Your task to perform on an android device: turn notification dots off Image 0: 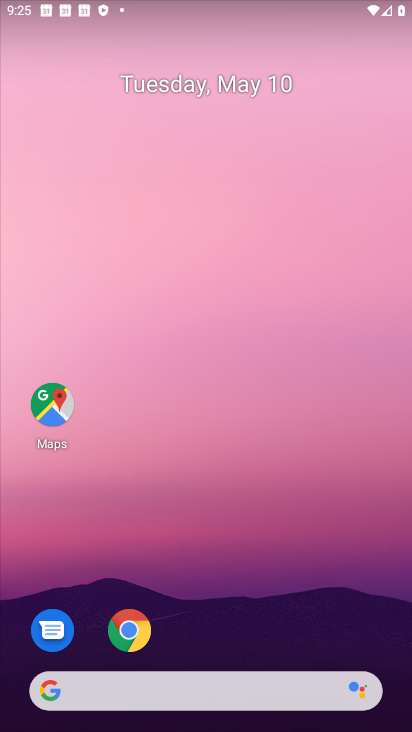
Step 0: drag from (152, 362) to (172, 4)
Your task to perform on an android device: turn notification dots off Image 1: 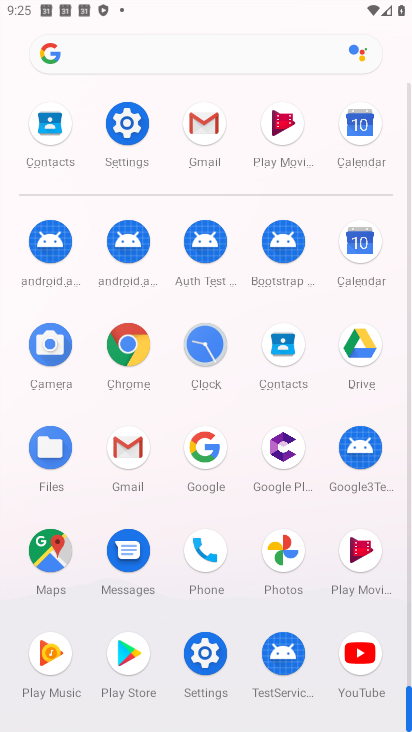
Step 1: click (121, 125)
Your task to perform on an android device: turn notification dots off Image 2: 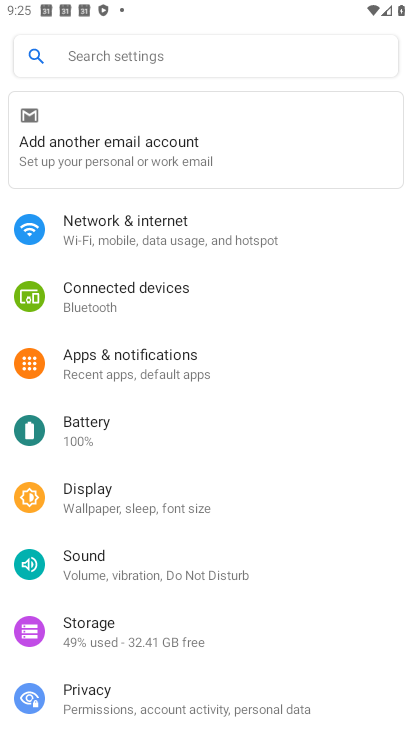
Step 2: click (183, 231)
Your task to perform on an android device: turn notification dots off Image 3: 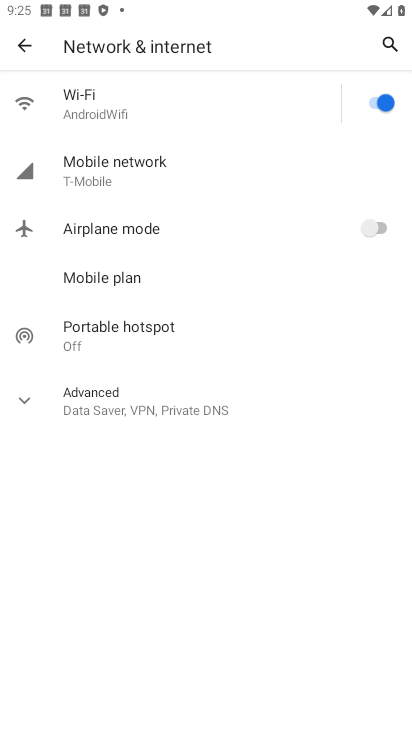
Step 3: press back button
Your task to perform on an android device: turn notification dots off Image 4: 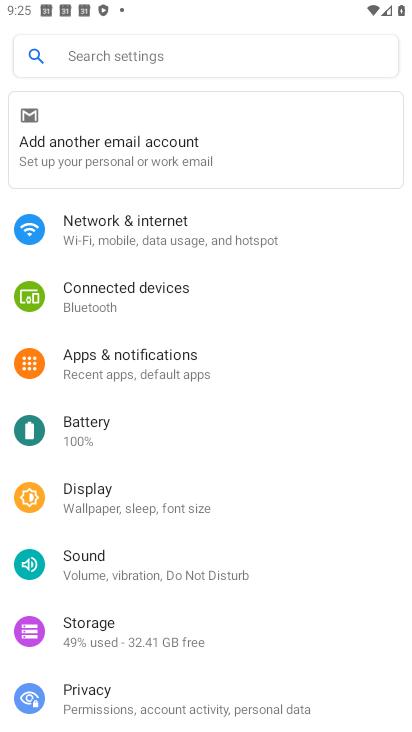
Step 4: click (177, 359)
Your task to perform on an android device: turn notification dots off Image 5: 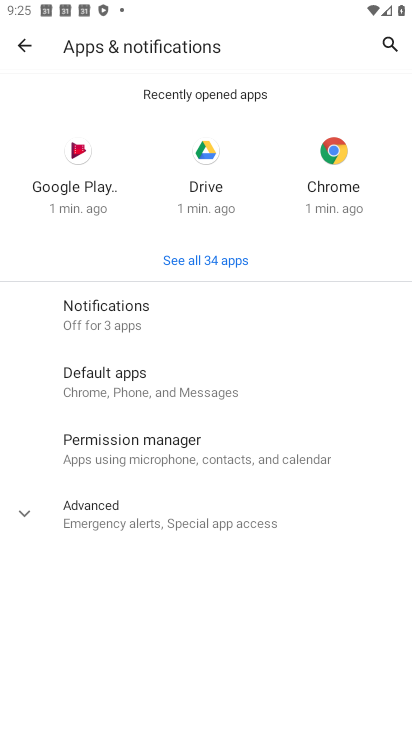
Step 5: click (157, 304)
Your task to perform on an android device: turn notification dots off Image 6: 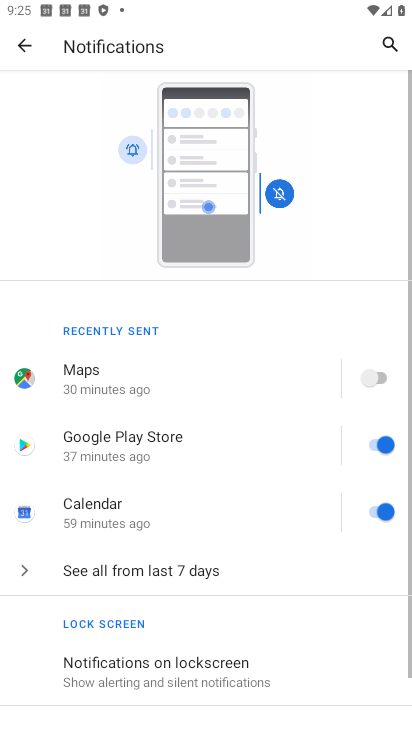
Step 6: drag from (269, 623) to (170, 25)
Your task to perform on an android device: turn notification dots off Image 7: 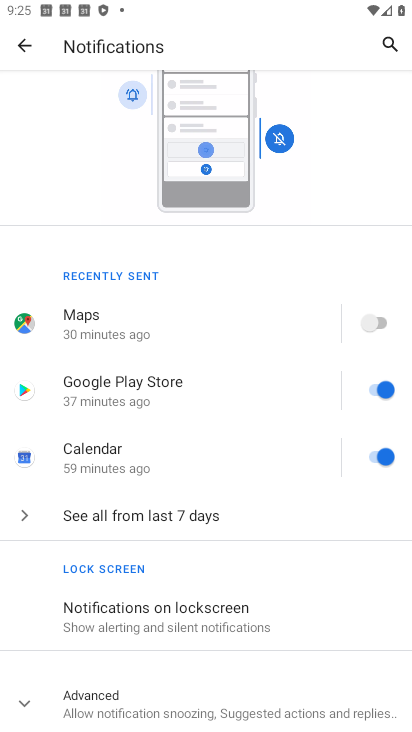
Step 7: click (256, 703)
Your task to perform on an android device: turn notification dots off Image 8: 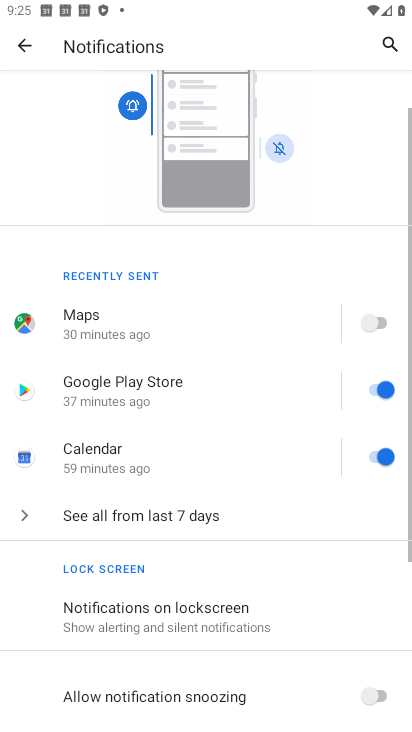
Step 8: task complete